Your task to perform on an android device: Open the web browser Image 0: 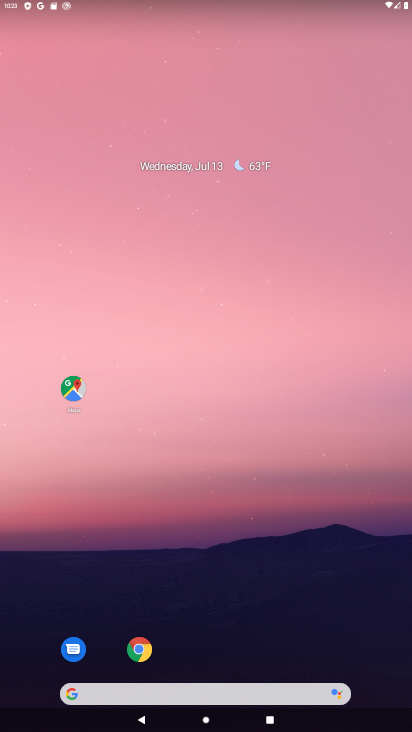
Step 0: click (132, 648)
Your task to perform on an android device: Open the web browser Image 1: 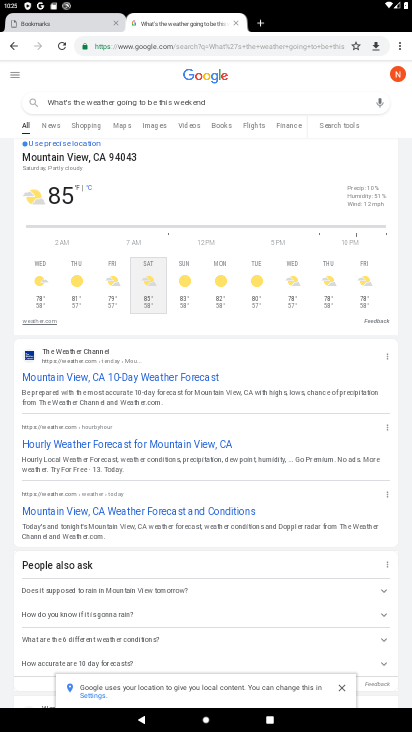
Step 1: task complete